Your task to perform on an android device: toggle airplane mode Image 0: 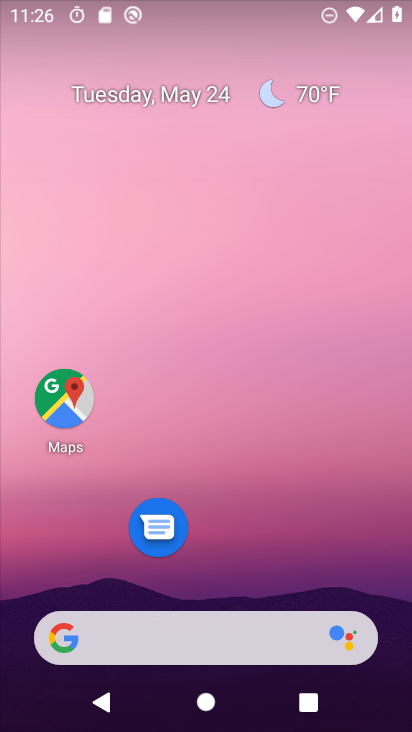
Step 0: drag from (237, 529) to (289, 88)
Your task to perform on an android device: toggle airplane mode Image 1: 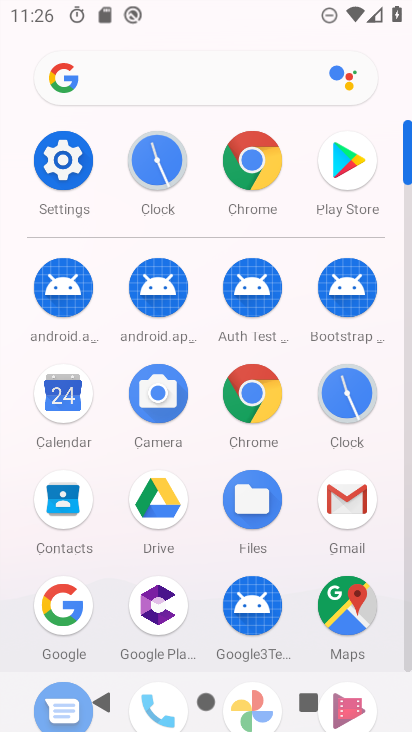
Step 1: click (51, 152)
Your task to perform on an android device: toggle airplane mode Image 2: 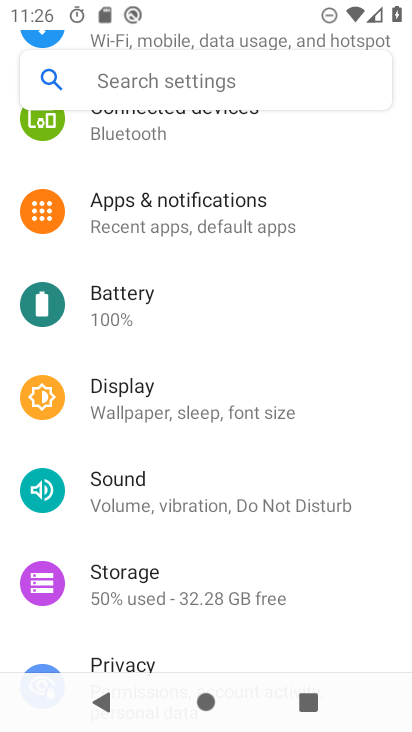
Step 2: drag from (179, 171) to (202, 532)
Your task to perform on an android device: toggle airplane mode Image 3: 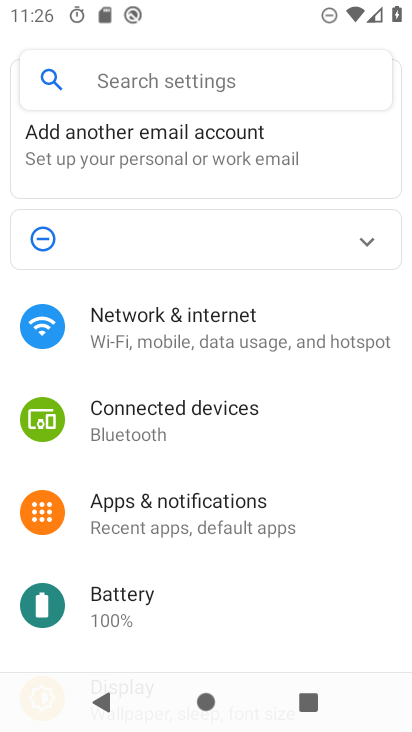
Step 3: click (190, 325)
Your task to perform on an android device: toggle airplane mode Image 4: 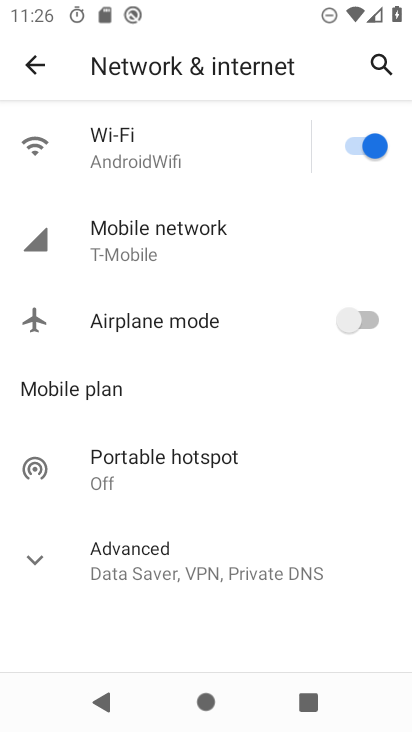
Step 4: click (366, 315)
Your task to perform on an android device: toggle airplane mode Image 5: 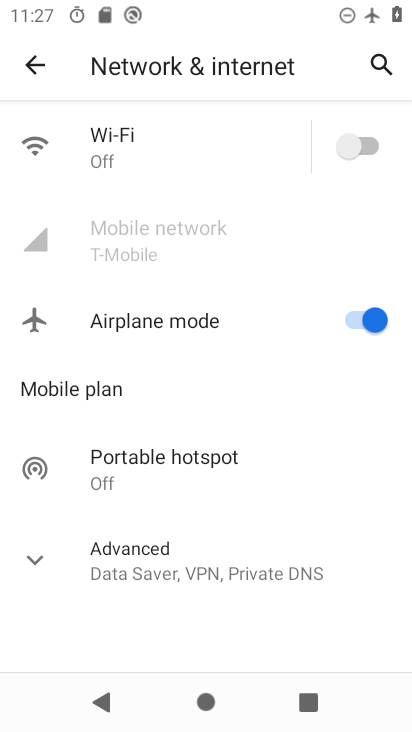
Step 5: task complete